Your task to perform on an android device: add a contact Image 0: 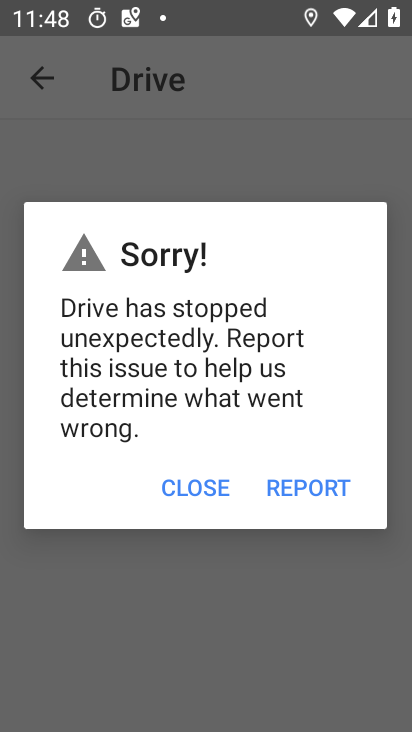
Step 0: drag from (355, 570) to (408, 526)
Your task to perform on an android device: add a contact Image 1: 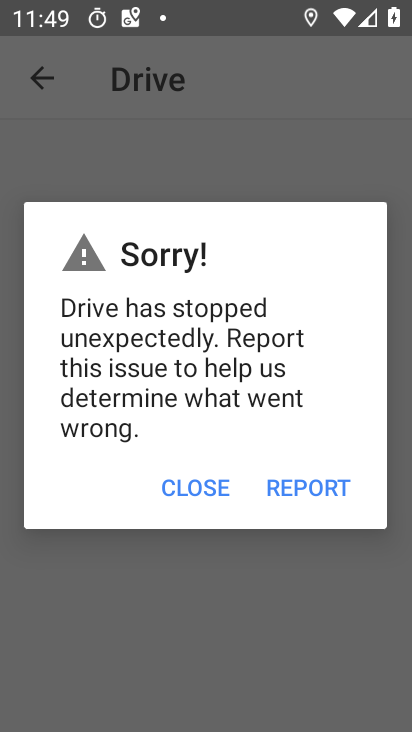
Step 1: press home button
Your task to perform on an android device: add a contact Image 2: 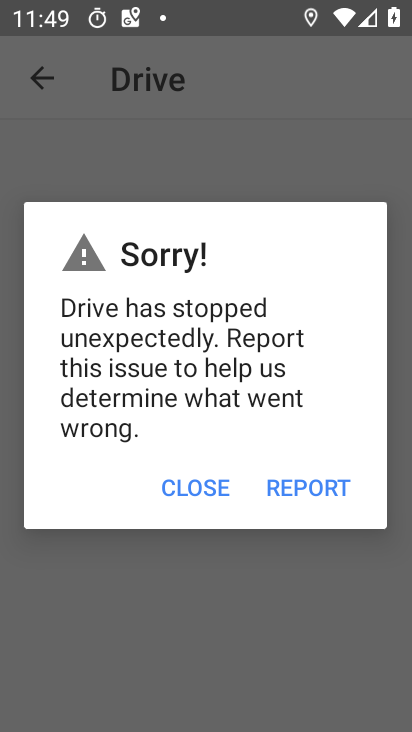
Step 2: drag from (408, 526) to (403, 668)
Your task to perform on an android device: add a contact Image 3: 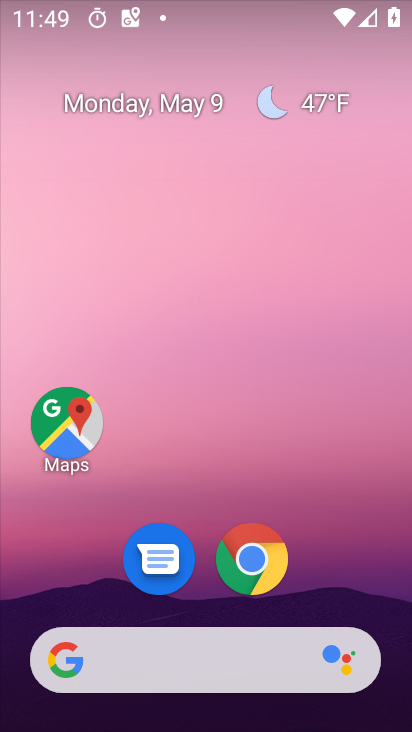
Step 3: drag from (370, 569) to (364, 8)
Your task to perform on an android device: add a contact Image 4: 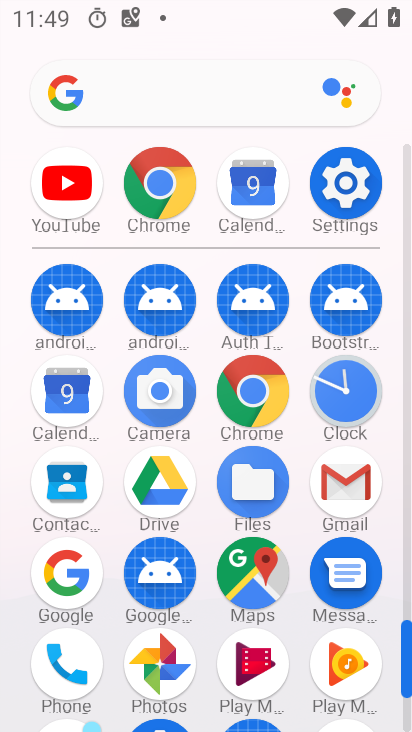
Step 4: click (77, 481)
Your task to perform on an android device: add a contact Image 5: 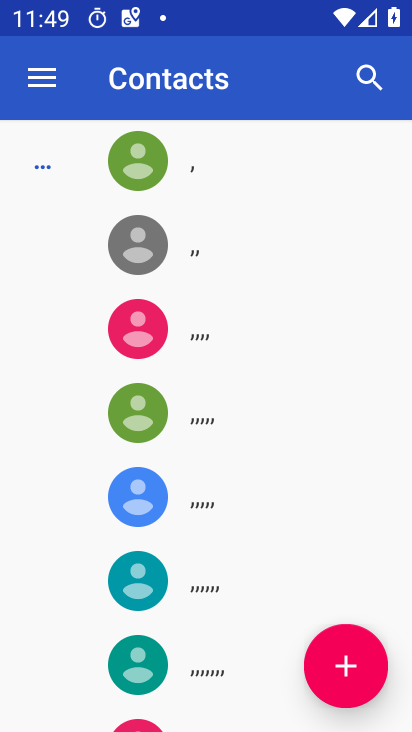
Step 5: click (362, 674)
Your task to perform on an android device: add a contact Image 6: 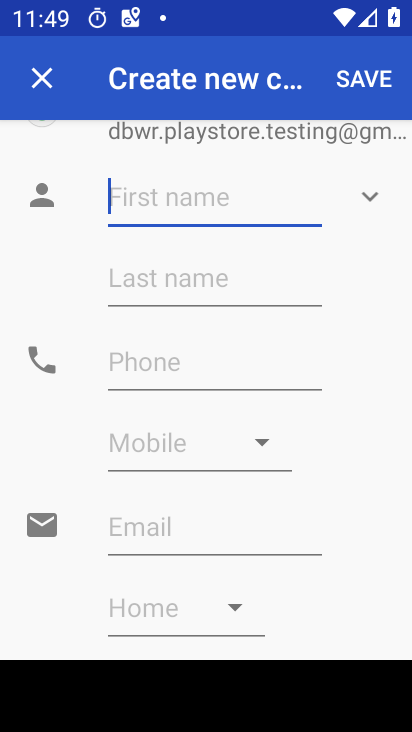
Step 6: type "dhks"
Your task to perform on an android device: add a contact Image 7: 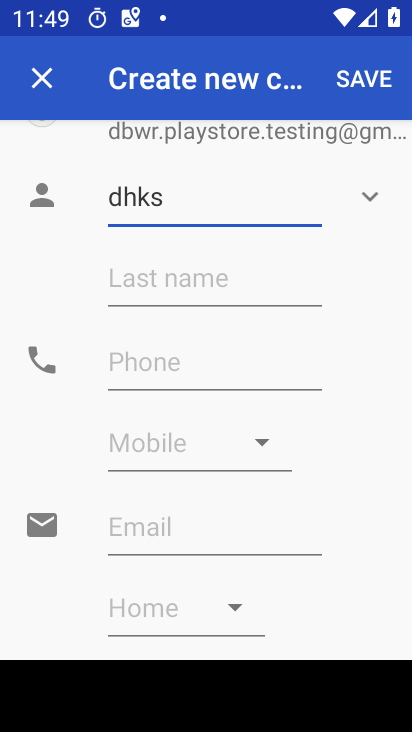
Step 7: click (131, 379)
Your task to perform on an android device: add a contact Image 8: 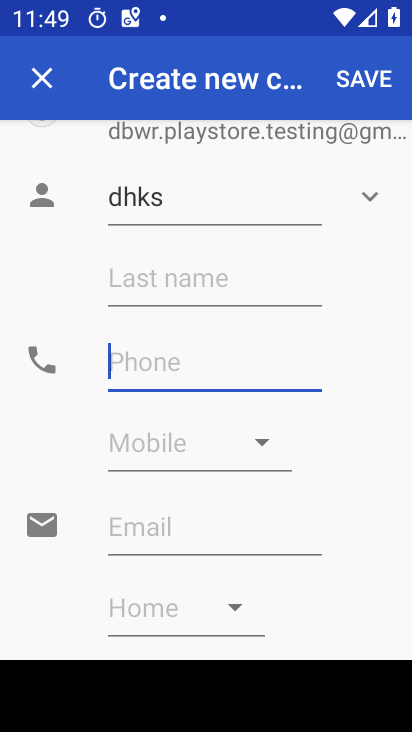
Step 8: click (131, 379)
Your task to perform on an android device: add a contact Image 9: 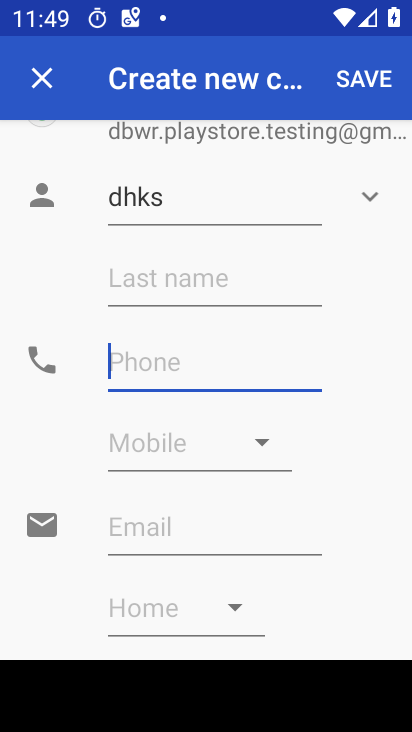
Step 9: type "984393"
Your task to perform on an android device: add a contact Image 10: 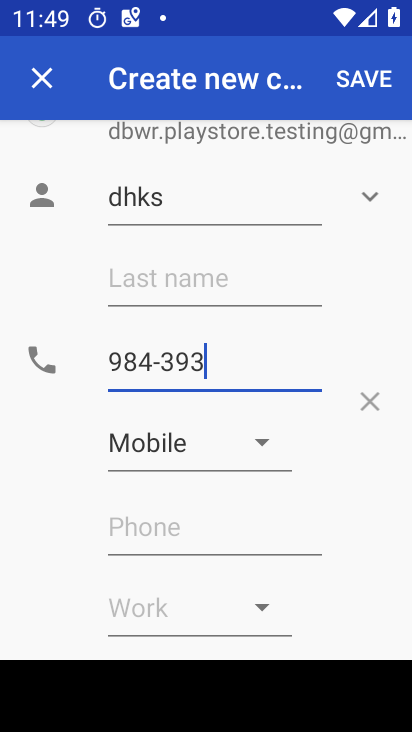
Step 10: click (351, 82)
Your task to perform on an android device: add a contact Image 11: 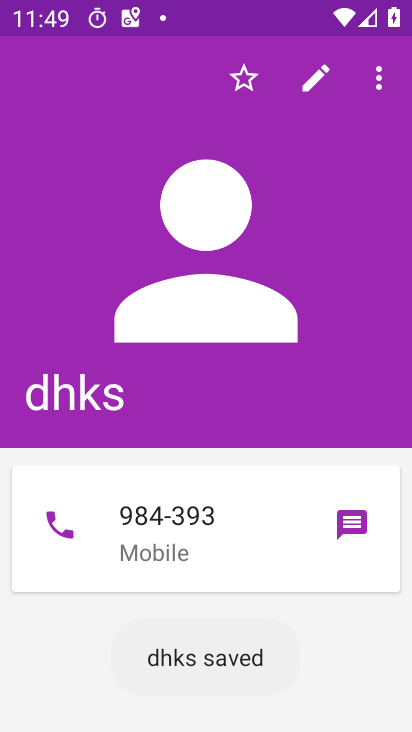
Step 11: task complete